Your task to perform on an android device: Open the web browser Image 0: 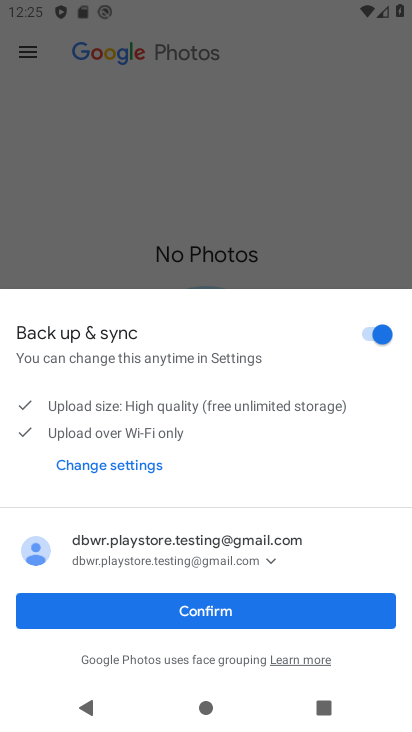
Step 0: press home button
Your task to perform on an android device: Open the web browser Image 1: 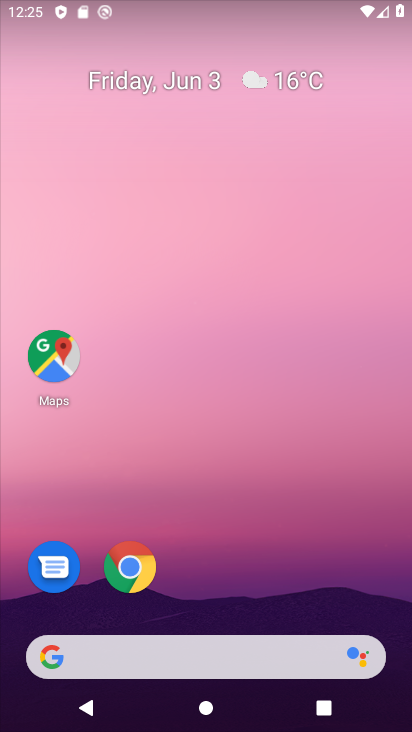
Step 1: click (129, 557)
Your task to perform on an android device: Open the web browser Image 2: 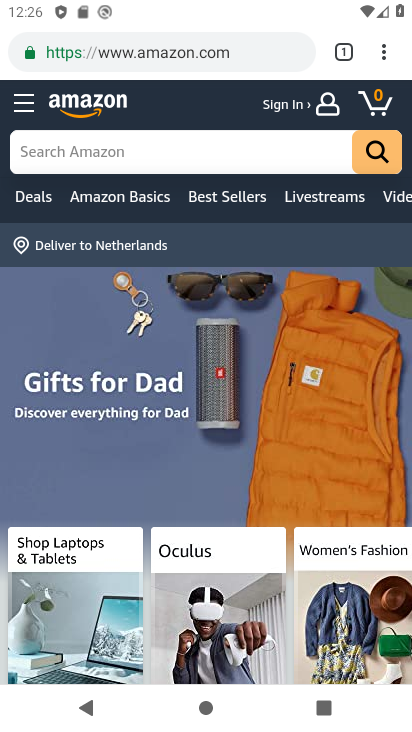
Step 2: task complete